Your task to perform on an android device: Go to calendar. Show me events next week Image 0: 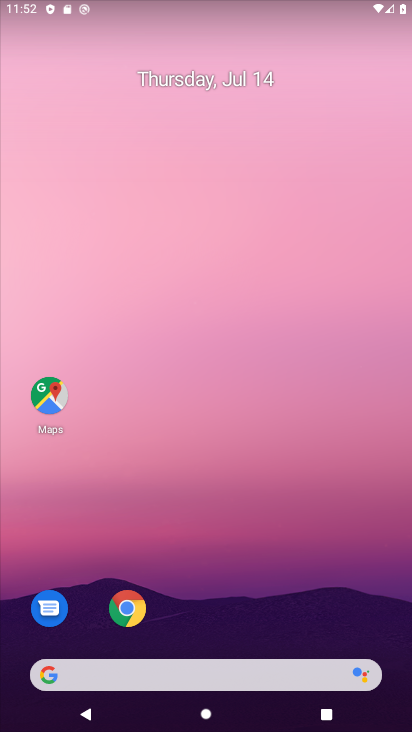
Step 0: drag from (176, 593) to (205, 222)
Your task to perform on an android device: Go to calendar. Show me events next week Image 1: 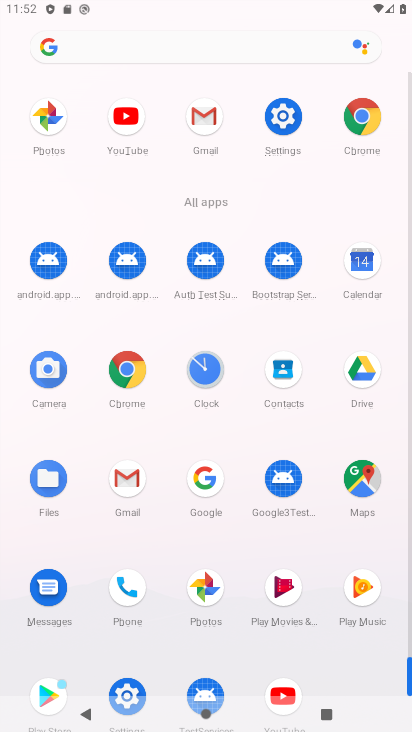
Step 1: click (372, 264)
Your task to perform on an android device: Go to calendar. Show me events next week Image 2: 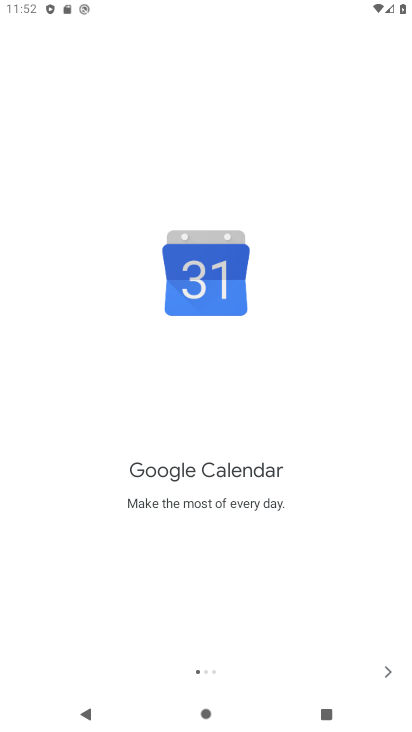
Step 2: click (387, 665)
Your task to perform on an android device: Go to calendar. Show me events next week Image 3: 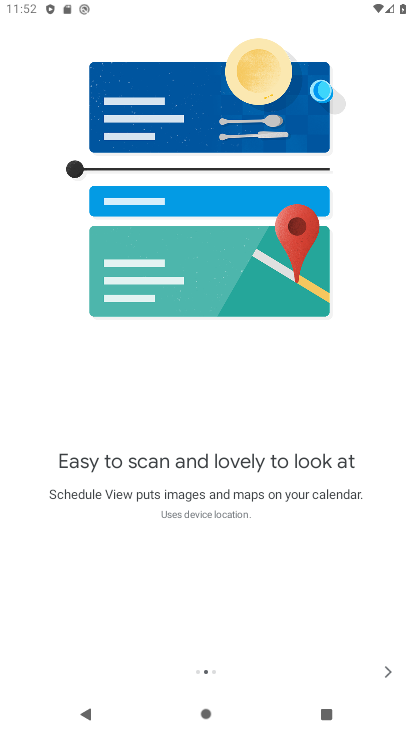
Step 3: click (387, 665)
Your task to perform on an android device: Go to calendar. Show me events next week Image 4: 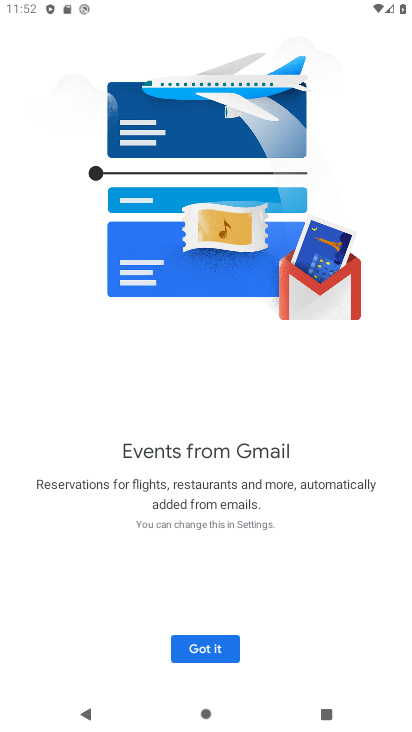
Step 4: click (211, 646)
Your task to perform on an android device: Go to calendar. Show me events next week Image 5: 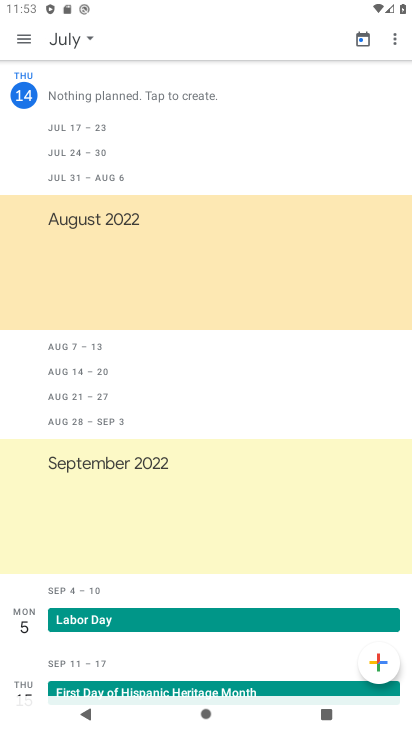
Step 5: click (19, 38)
Your task to perform on an android device: Go to calendar. Show me events next week Image 6: 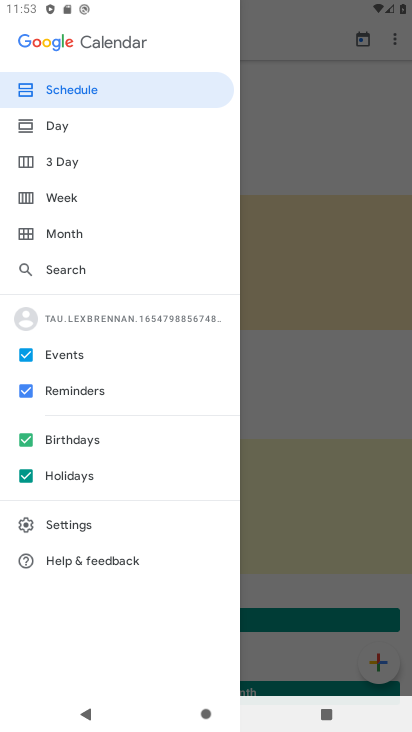
Step 6: click (54, 194)
Your task to perform on an android device: Go to calendar. Show me events next week Image 7: 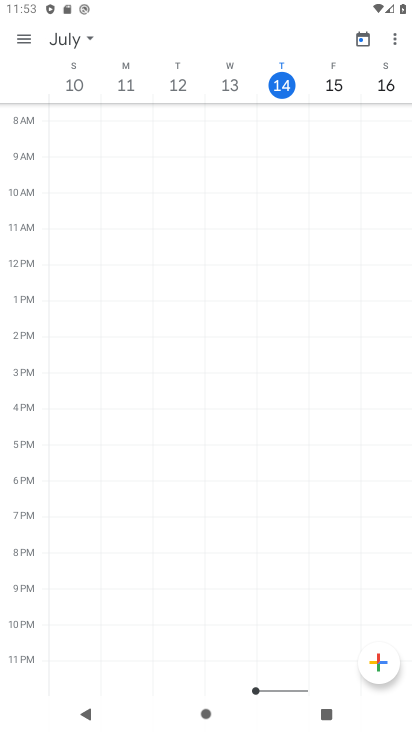
Step 7: click (68, 28)
Your task to perform on an android device: Go to calendar. Show me events next week Image 8: 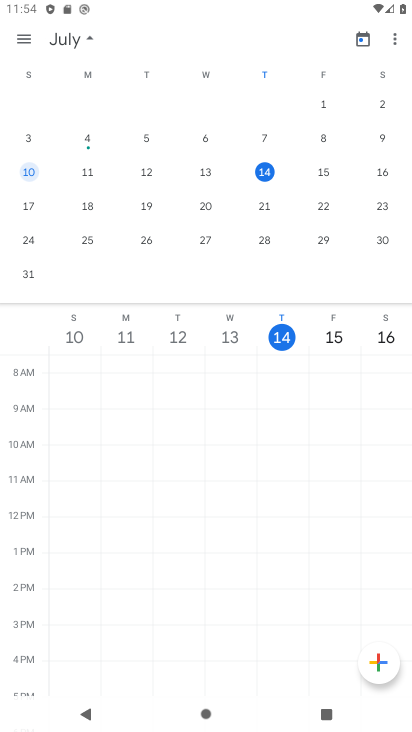
Step 8: task complete